Your task to perform on an android device: open a new tab in the chrome app Image 0: 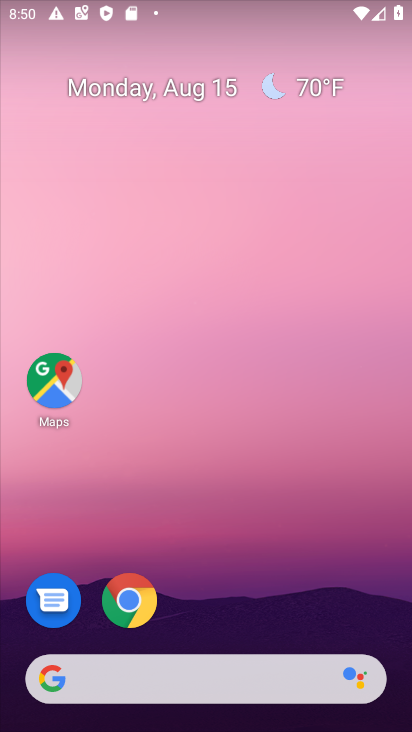
Step 0: click (116, 596)
Your task to perform on an android device: open a new tab in the chrome app Image 1: 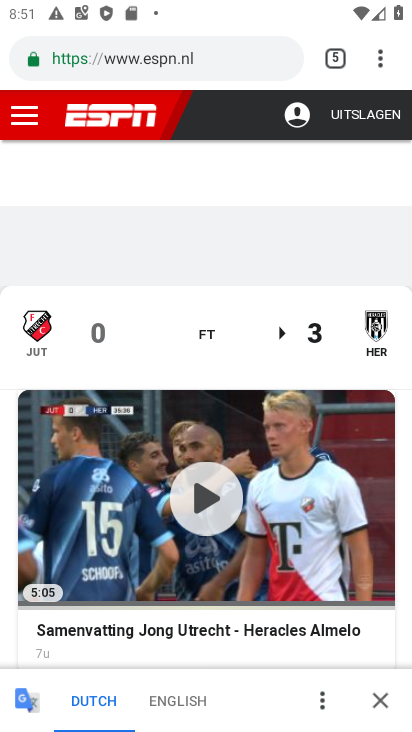
Step 1: click (381, 65)
Your task to perform on an android device: open a new tab in the chrome app Image 2: 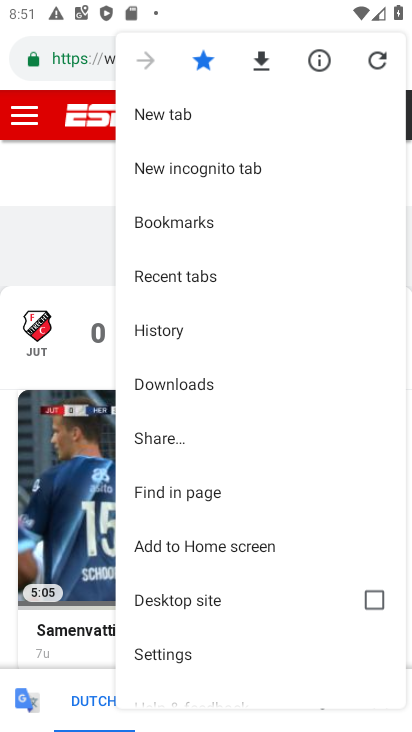
Step 2: click (144, 116)
Your task to perform on an android device: open a new tab in the chrome app Image 3: 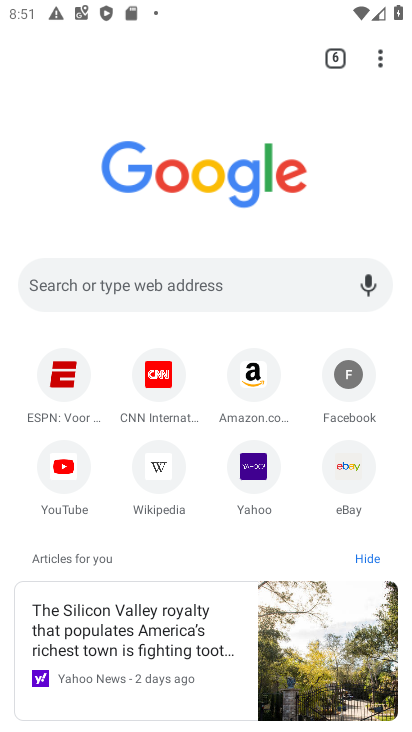
Step 3: task complete